Your task to perform on an android device: toggle javascript in the chrome app Image 0: 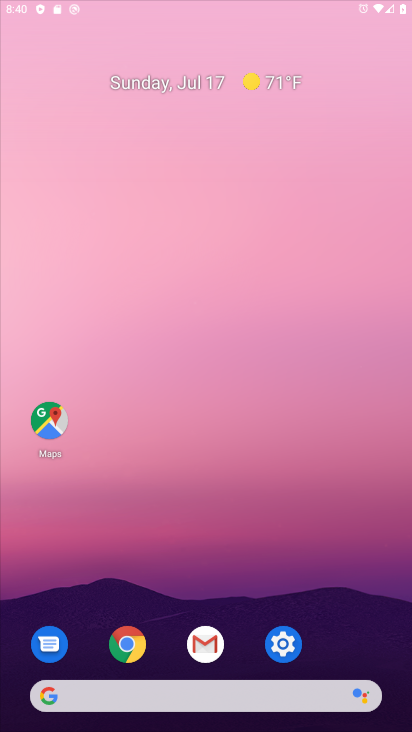
Step 0: click (136, 646)
Your task to perform on an android device: toggle javascript in the chrome app Image 1: 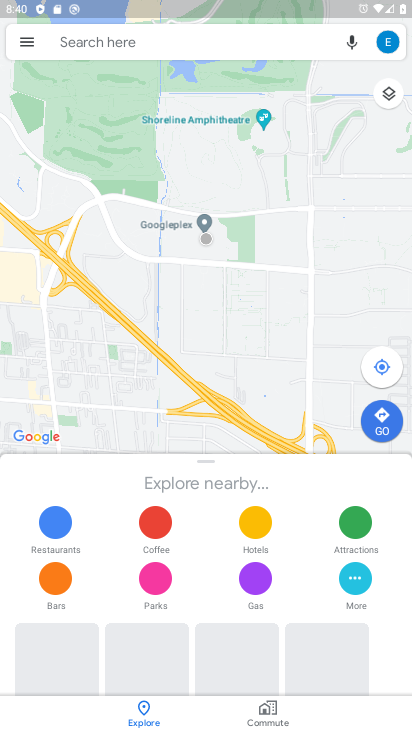
Step 1: press home button
Your task to perform on an android device: toggle javascript in the chrome app Image 2: 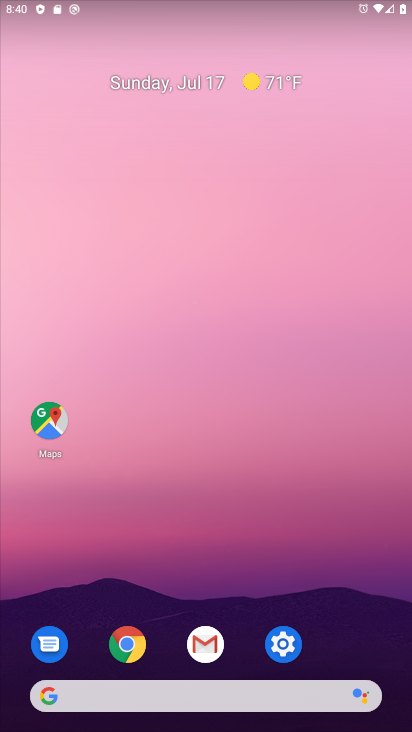
Step 2: click (127, 640)
Your task to perform on an android device: toggle javascript in the chrome app Image 3: 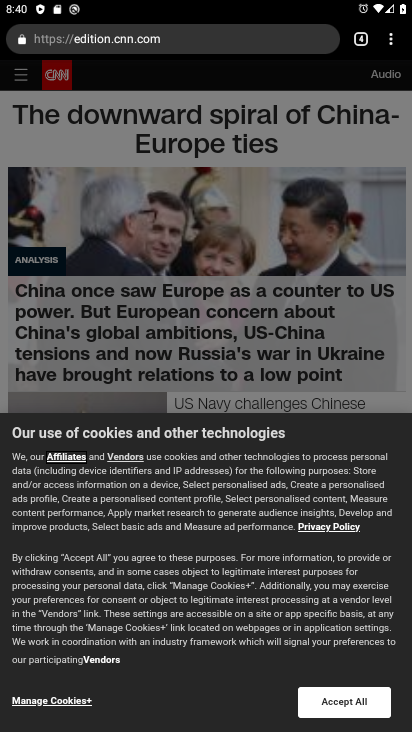
Step 3: click (382, 52)
Your task to perform on an android device: toggle javascript in the chrome app Image 4: 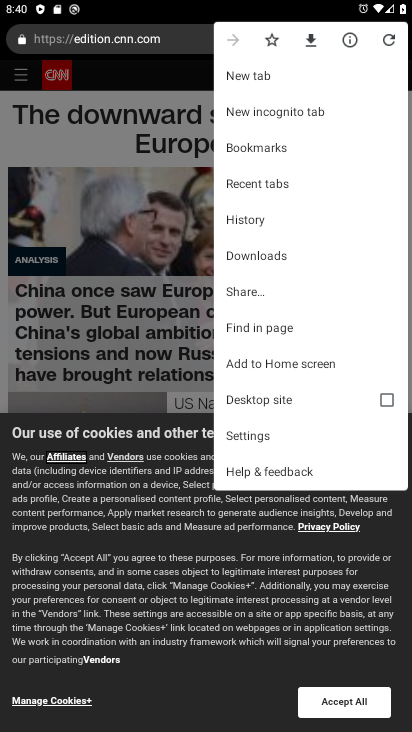
Step 4: click (259, 429)
Your task to perform on an android device: toggle javascript in the chrome app Image 5: 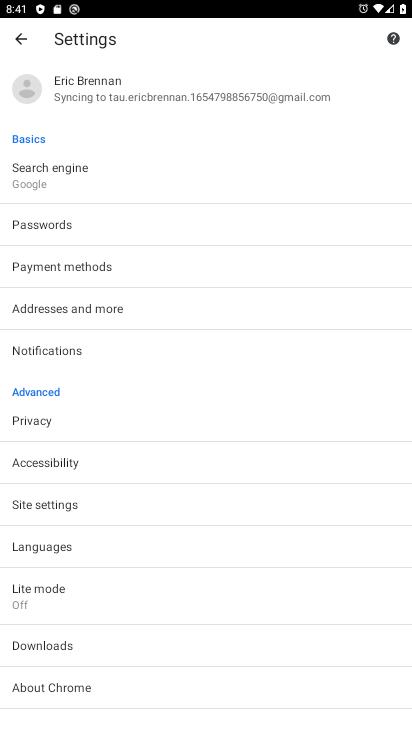
Step 5: click (62, 502)
Your task to perform on an android device: toggle javascript in the chrome app Image 6: 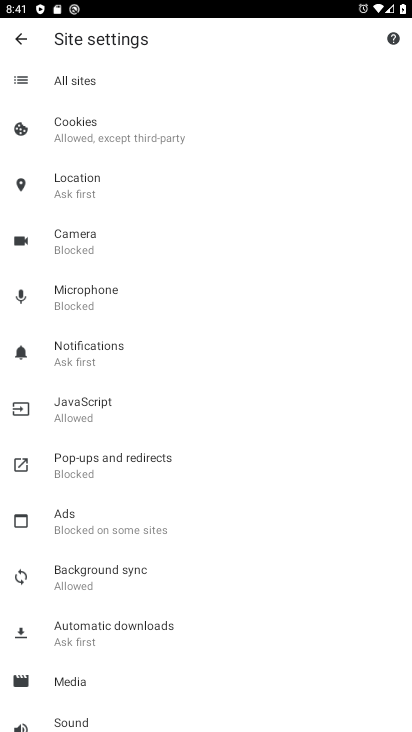
Step 6: click (125, 405)
Your task to perform on an android device: toggle javascript in the chrome app Image 7: 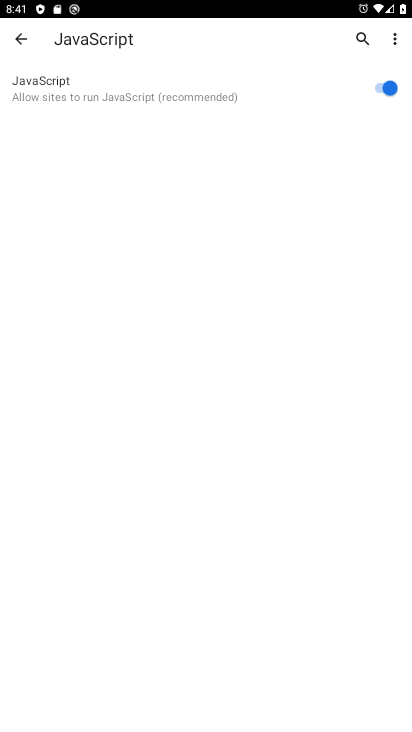
Step 7: task complete